Your task to perform on an android device: find which apps use the phone's location Image 0: 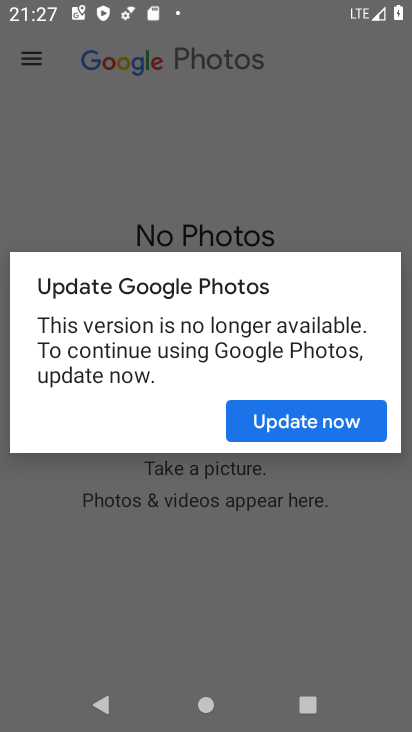
Step 0: press home button
Your task to perform on an android device: find which apps use the phone's location Image 1: 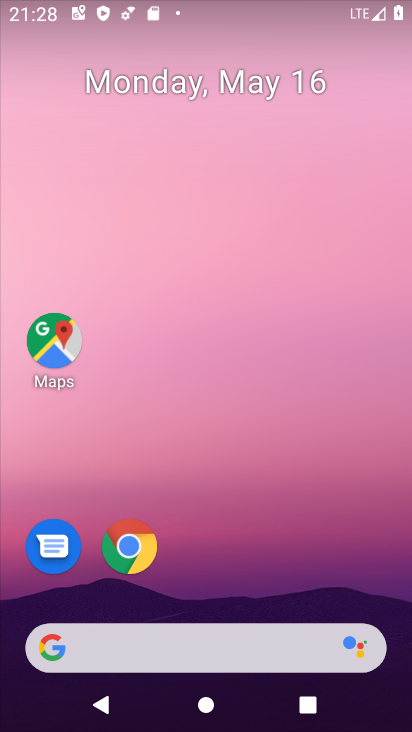
Step 1: drag from (242, 687) to (290, 230)
Your task to perform on an android device: find which apps use the phone's location Image 2: 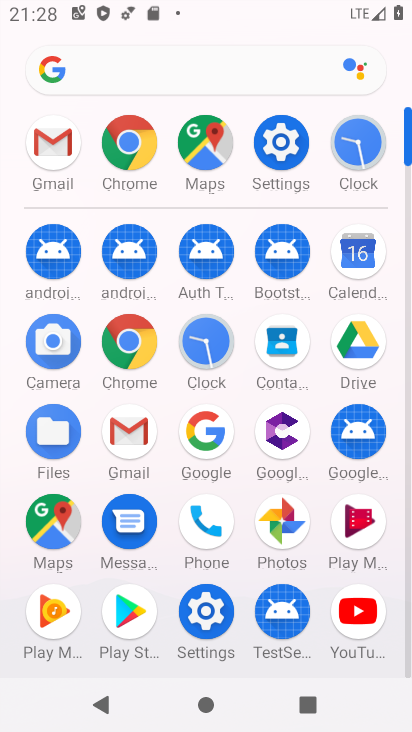
Step 2: click (277, 161)
Your task to perform on an android device: find which apps use the phone's location Image 3: 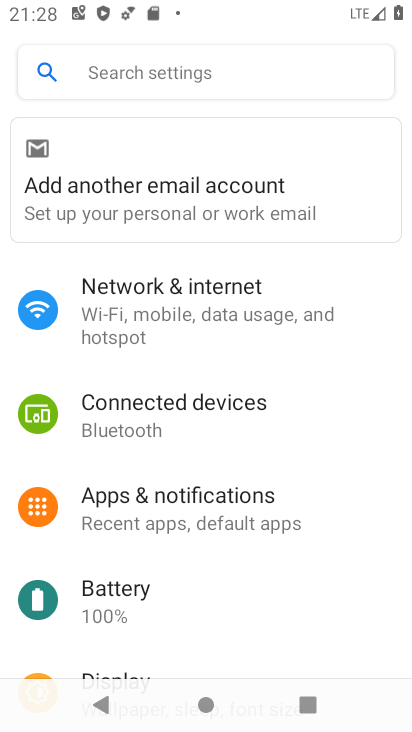
Step 3: click (181, 88)
Your task to perform on an android device: find which apps use the phone's location Image 4: 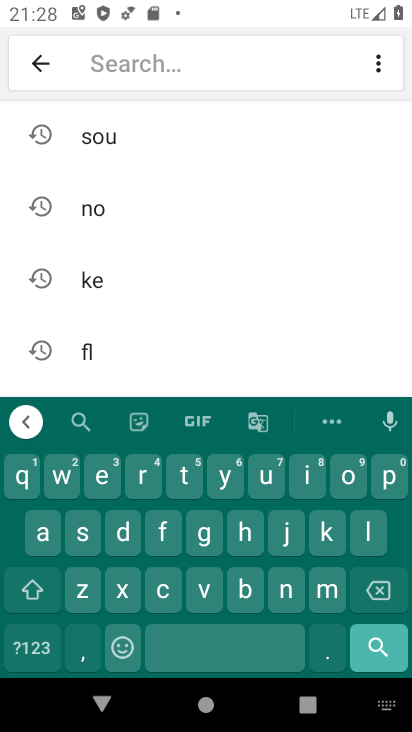
Step 4: drag from (165, 325) to (179, 247)
Your task to perform on an android device: find which apps use the phone's location Image 5: 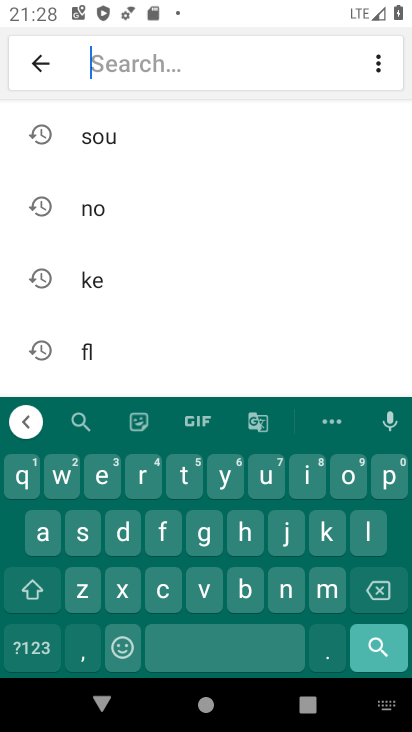
Step 5: click (366, 527)
Your task to perform on an android device: find which apps use the phone's location Image 6: 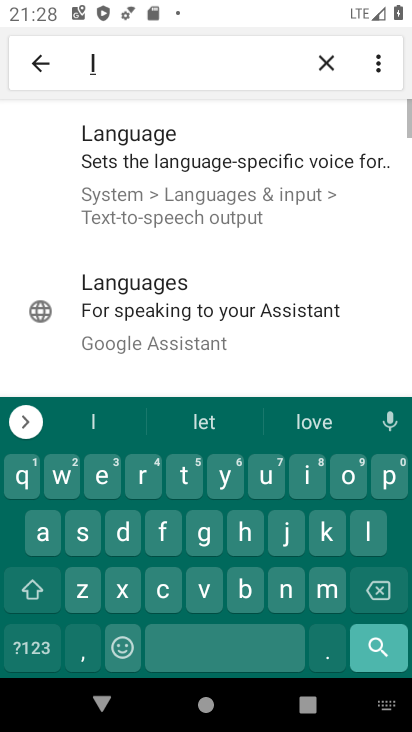
Step 6: click (344, 484)
Your task to perform on an android device: find which apps use the phone's location Image 7: 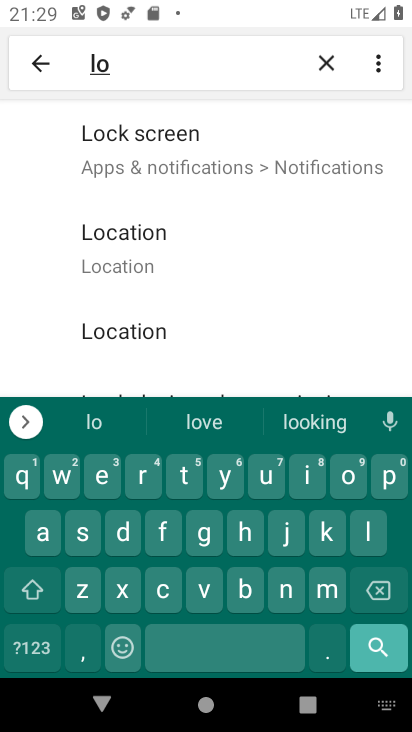
Step 7: click (177, 261)
Your task to perform on an android device: find which apps use the phone's location Image 8: 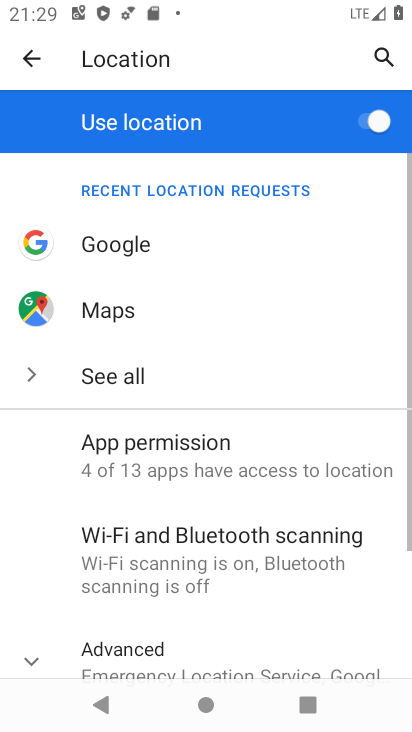
Step 8: task complete